Your task to perform on an android device: What's on my calendar today? Image 0: 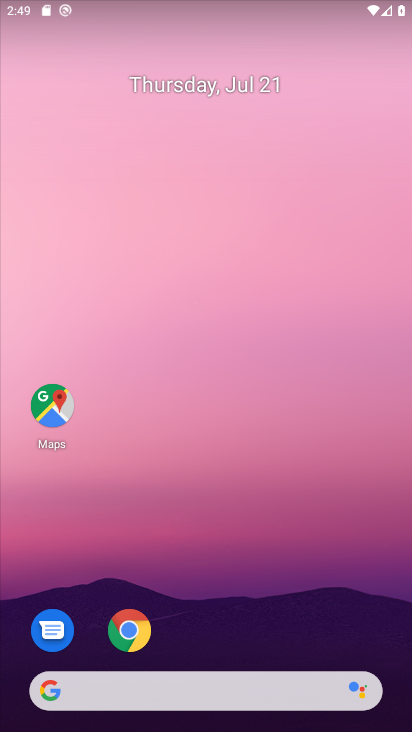
Step 0: drag from (251, 648) to (195, 233)
Your task to perform on an android device: What's on my calendar today? Image 1: 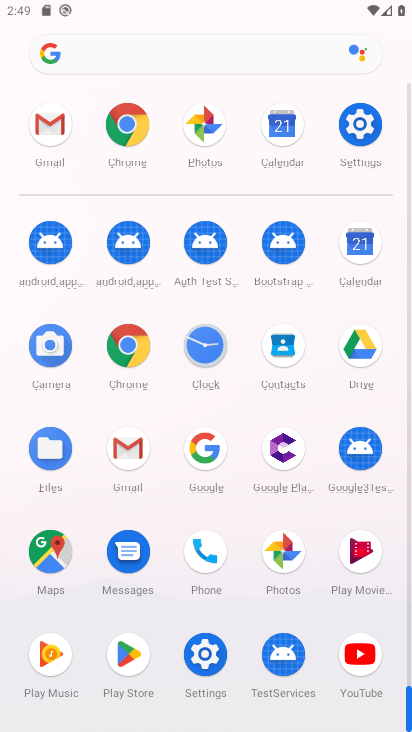
Step 1: click (350, 252)
Your task to perform on an android device: What's on my calendar today? Image 2: 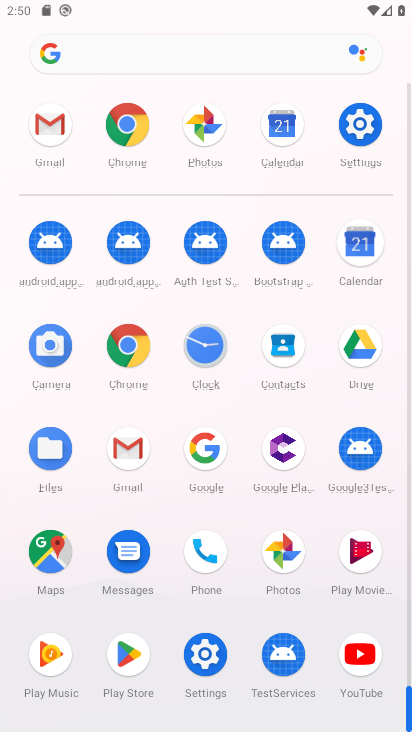
Step 2: click (351, 250)
Your task to perform on an android device: What's on my calendar today? Image 3: 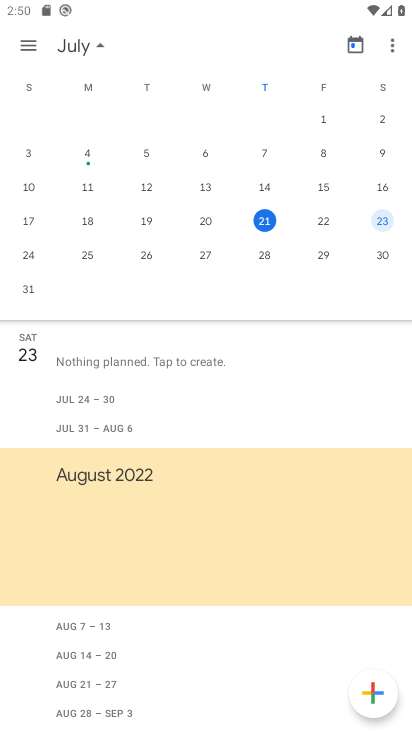
Step 3: click (268, 218)
Your task to perform on an android device: What's on my calendar today? Image 4: 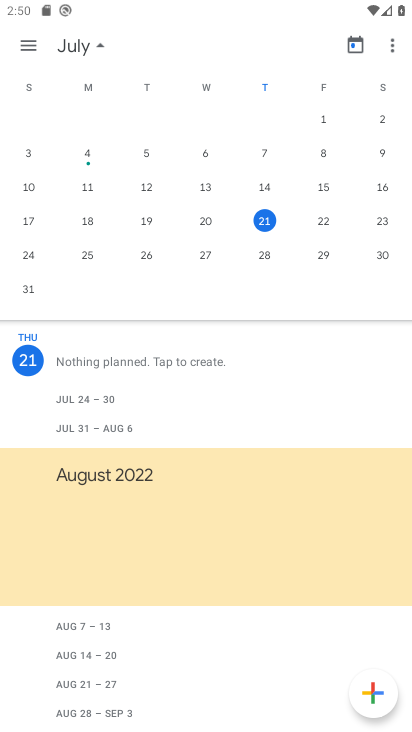
Step 4: click (268, 218)
Your task to perform on an android device: What's on my calendar today? Image 5: 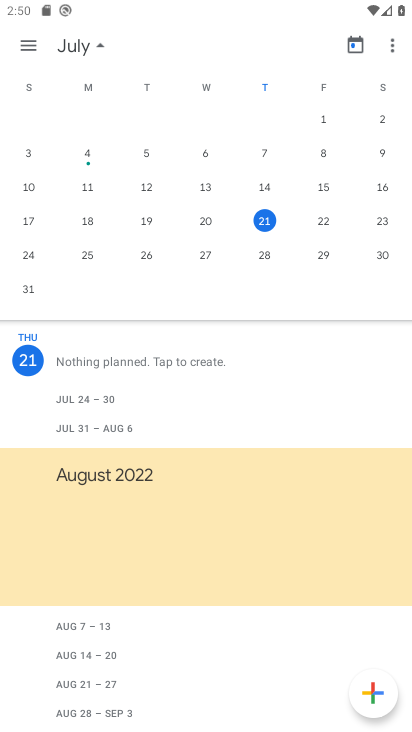
Step 5: click (268, 217)
Your task to perform on an android device: What's on my calendar today? Image 6: 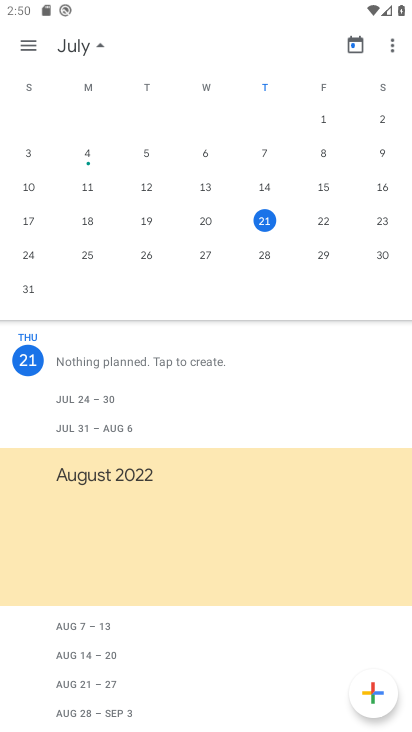
Step 6: click (270, 216)
Your task to perform on an android device: What's on my calendar today? Image 7: 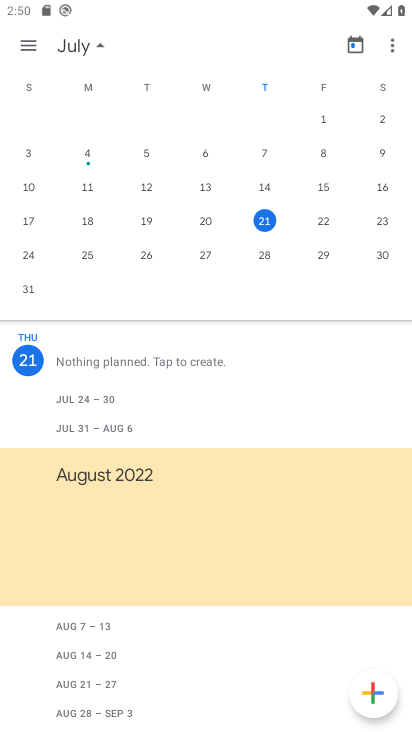
Step 7: task complete